Your task to perform on an android device: Search for hotels in Washington DC Image 0: 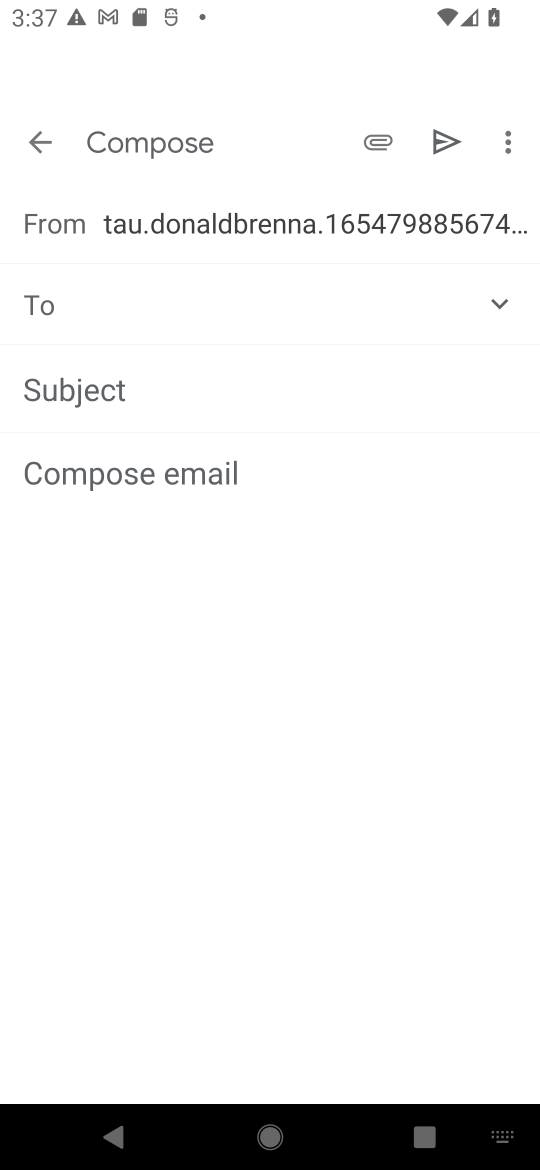
Step 0: press home button
Your task to perform on an android device: Search for hotels in Washington DC Image 1: 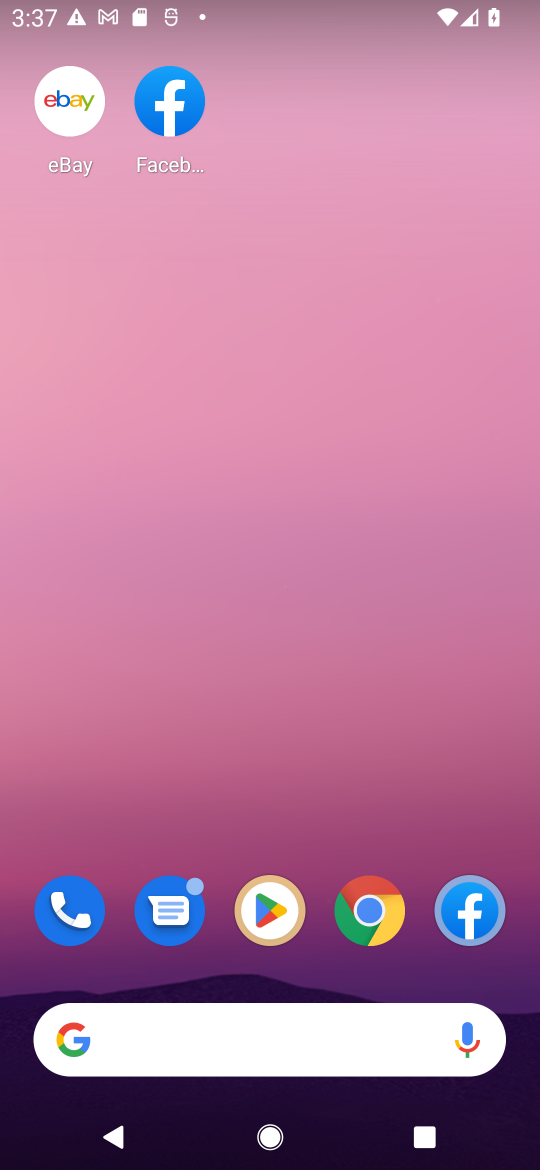
Step 1: click (260, 927)
Your task to perform on an android device: Search for hotels in Washington DC Image 2: 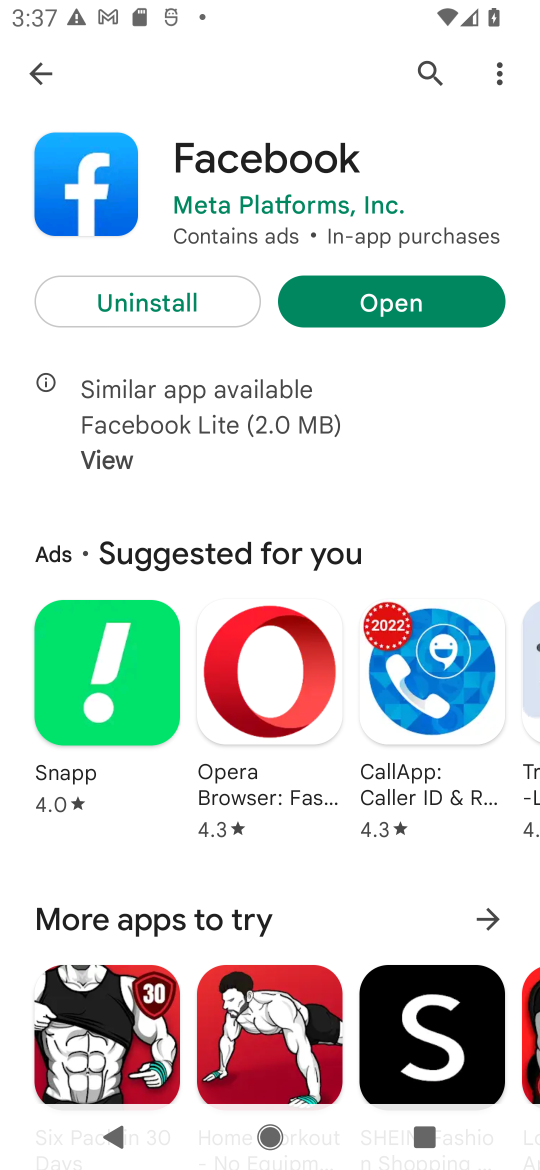
Step 2: click (35, 78)
Your task to perform on an android device: Search for hotels in Washington DC Image 3: 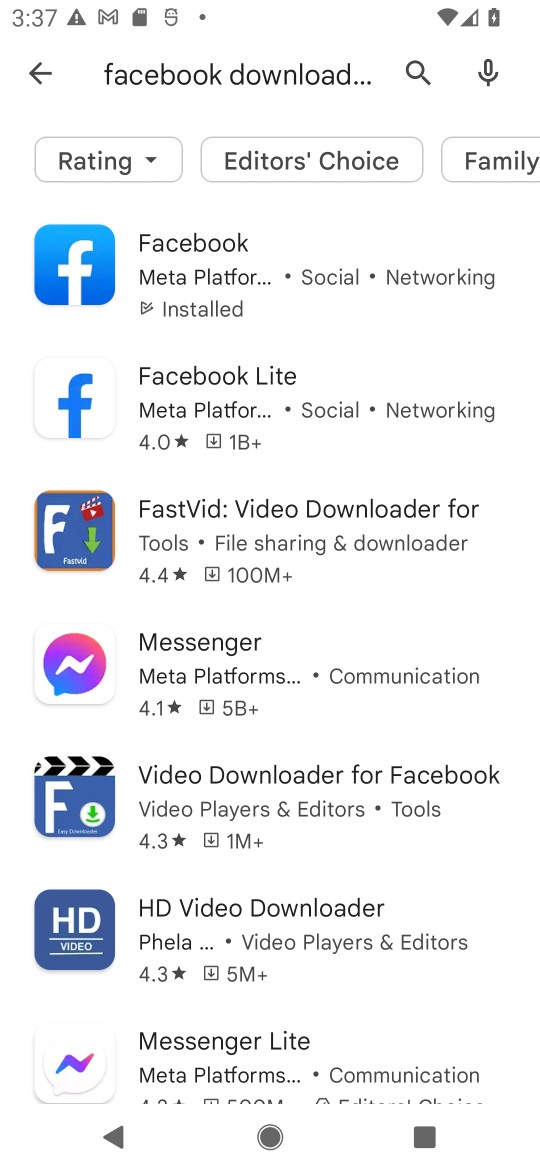
Step 3: click (34, 84)
Your task to perform on an android device: Search for hotels in Washington DC Image 4: 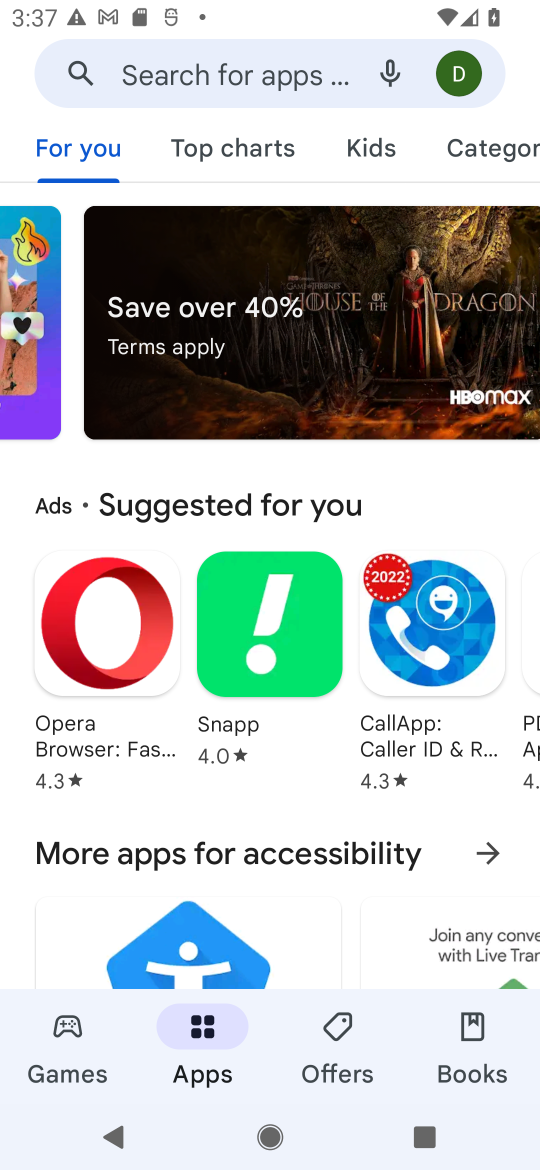
Step 4: press back button
Your task to perform on an android device: Search for hotels in Washington DC Image 5: 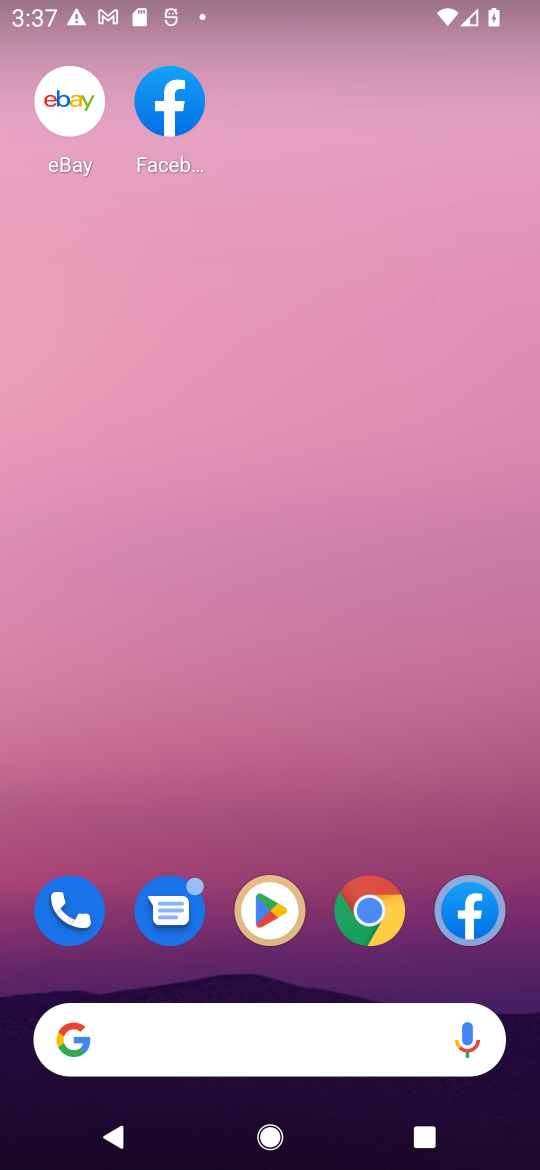
Step 5: click (210, 1032)
Your task to perform on an android device: Search for hotels in Washington DC Image 6: 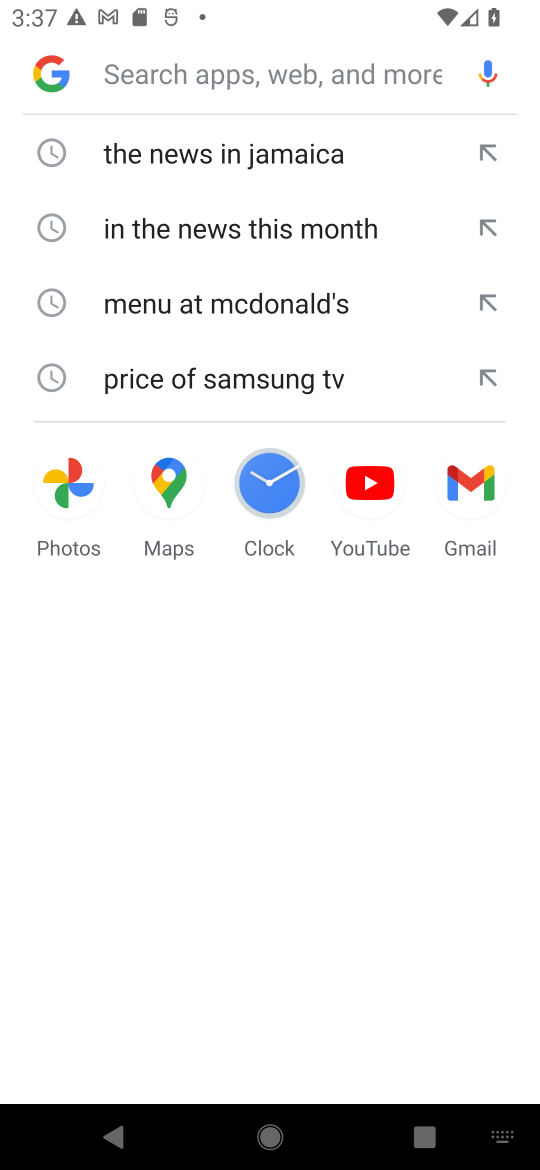
Step 6: click (150, 499)
Your task to perform on an android device: Search for hotels in Washington DC Image 7: 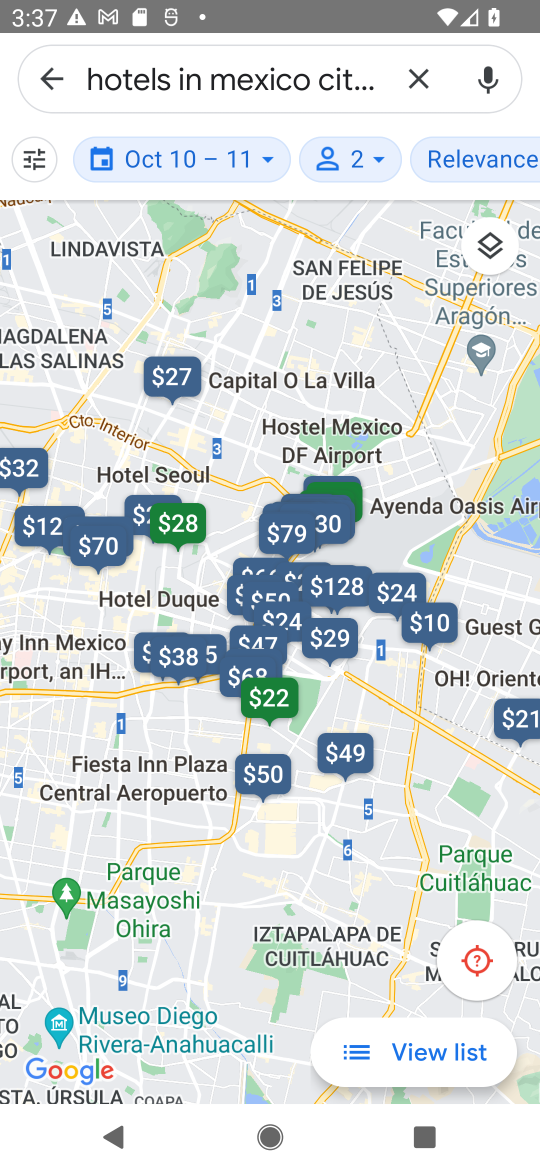
Step 7: click (409, 79)
Your task to perform on an android device: Search for hotels in Washington DC Image 8: 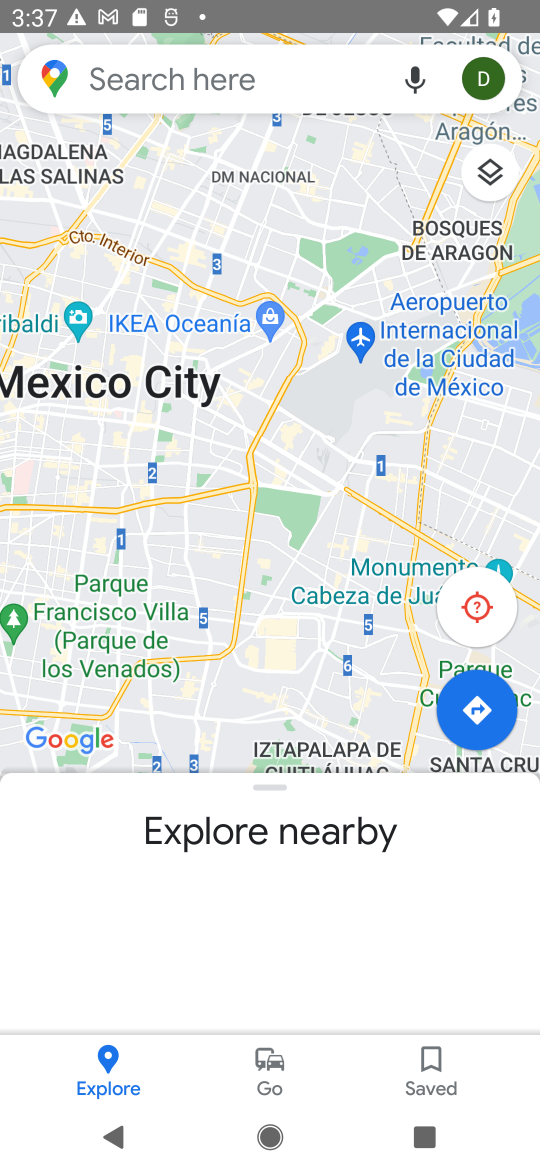
Step 8: click (257, 71)
Your task to perform on an android device: Search for hotels in Washington DC Image 9: 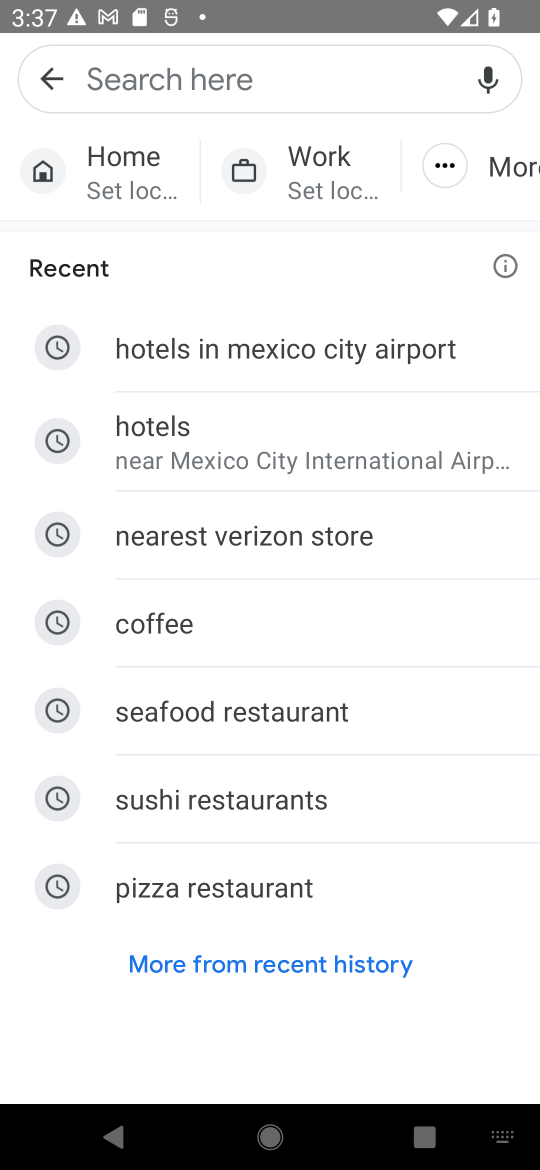
Step 9: type "hotels in Washington DC"
Your task to perform on an android device: Search for hotels in Washington DC Image 10: 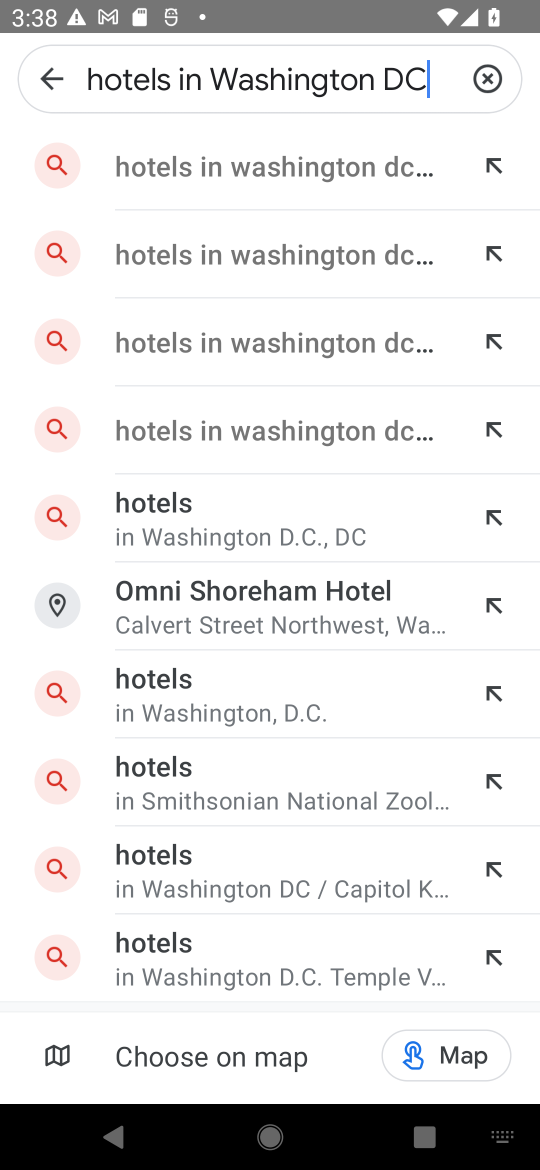
Step 10: click (305, 154)
Your task to perform on an android device: Search for hotels in Washington DC Image 11: 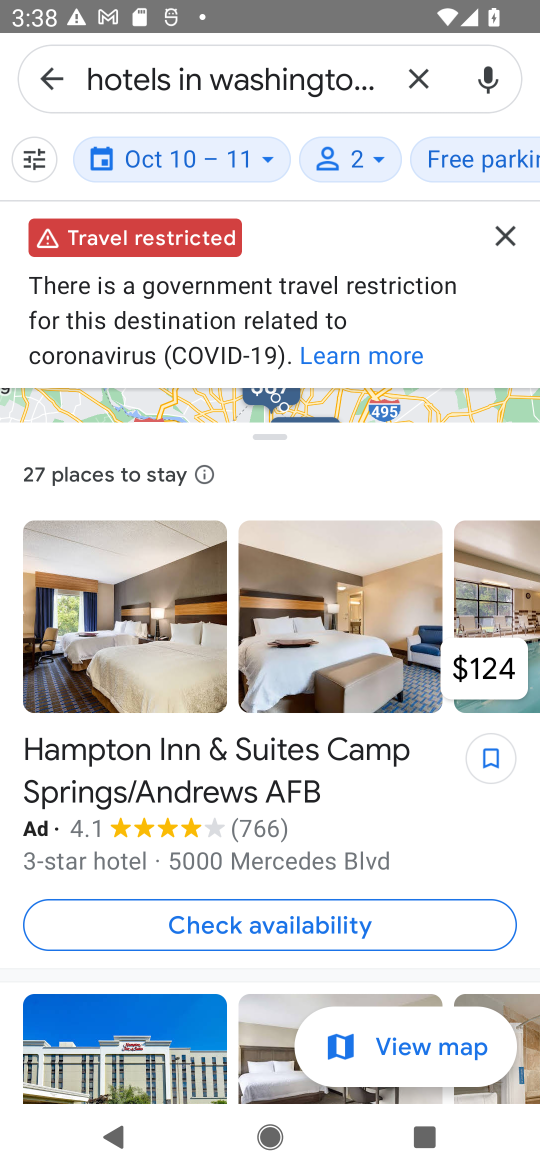
Step 11: task complete